Your task to perform on an android device: turn on bluetooth scan Image 0: 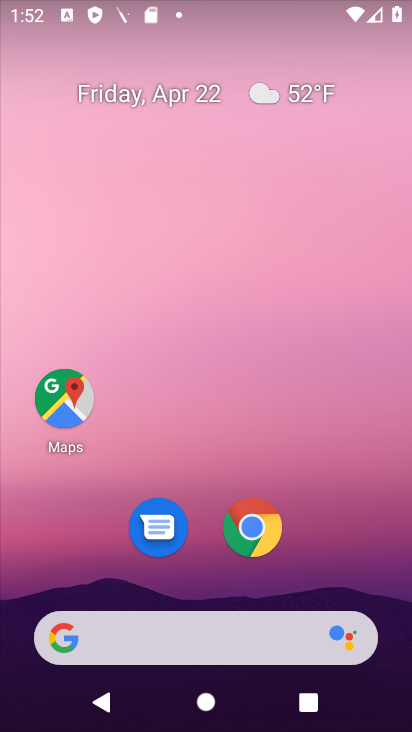
Step 0: drag from (353, 467) to (340, 107)
Your task to perform on an android device: turn on bluetooth scan Image 1: 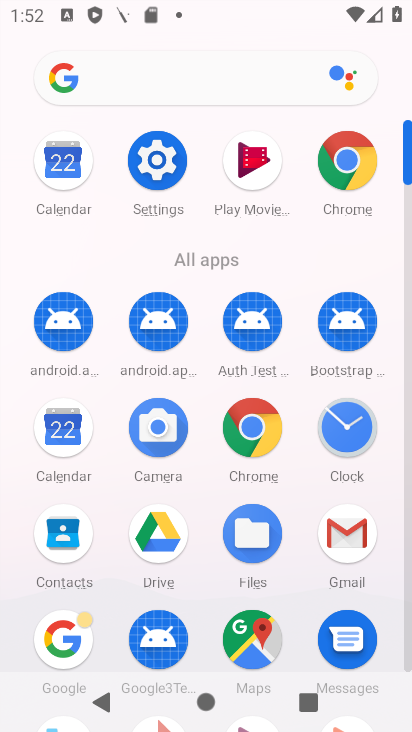
Step 1: click (136, 161)
Your task to perform on an android device: turn on bluetooth scan Image 2: 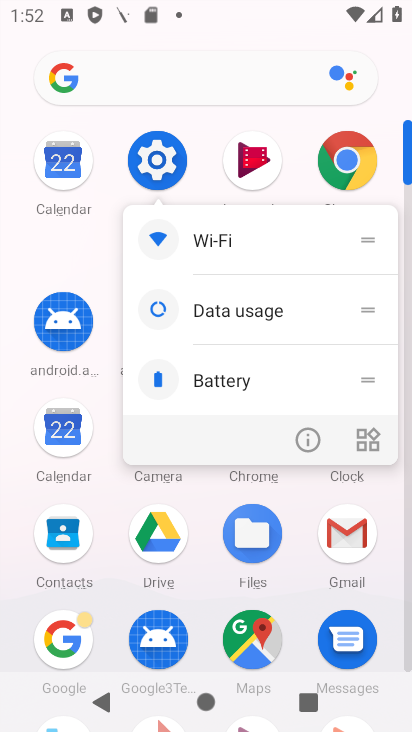
Step 2: click (136, 159)
Your task to perform on an android device: turn on bluetooth scan Image 3: 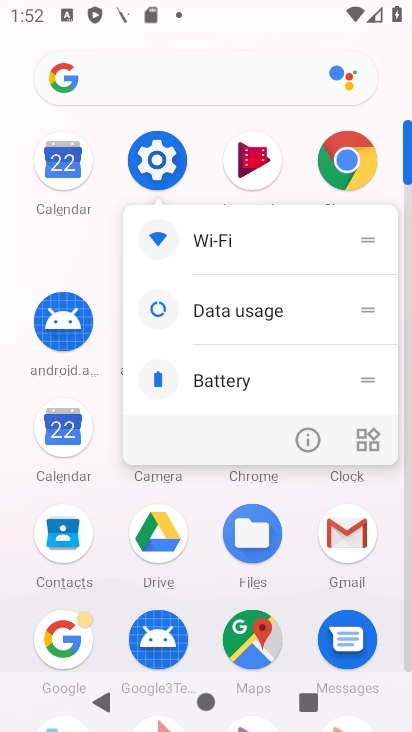
Step 3: click (168, 155)
Your task to perform on an android device: turn on bluetooth scan Image 4: 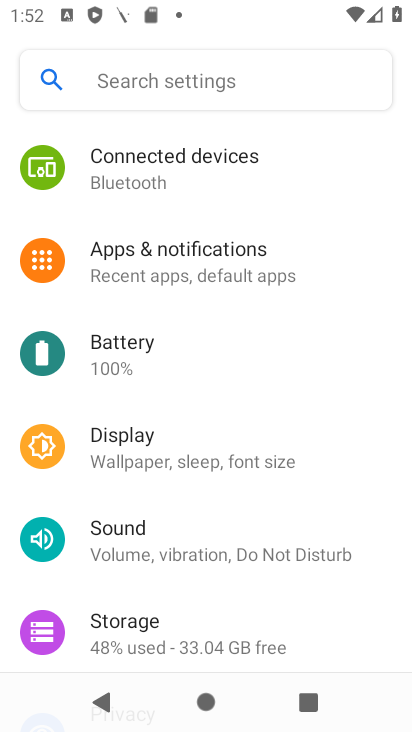
Step 4: drag from (221, 517) to (183, 250)
Your task to perform on an android device: turn on bluetooth scan Image 5: 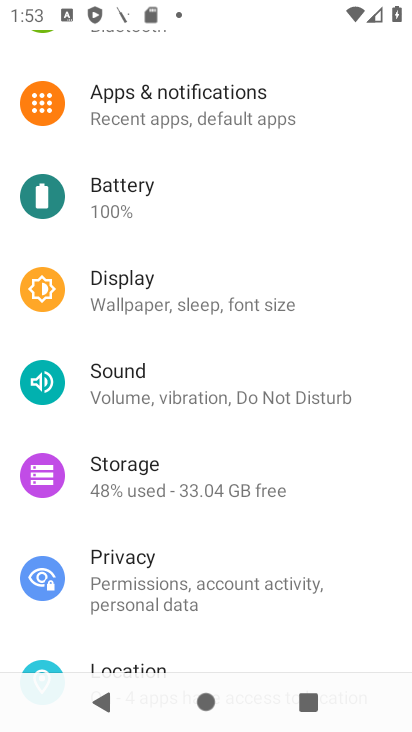
Step 5: drag from (213, 546) to (199, 283)
Your task to perform on an android device: turn on bluetooth scan Image 6: 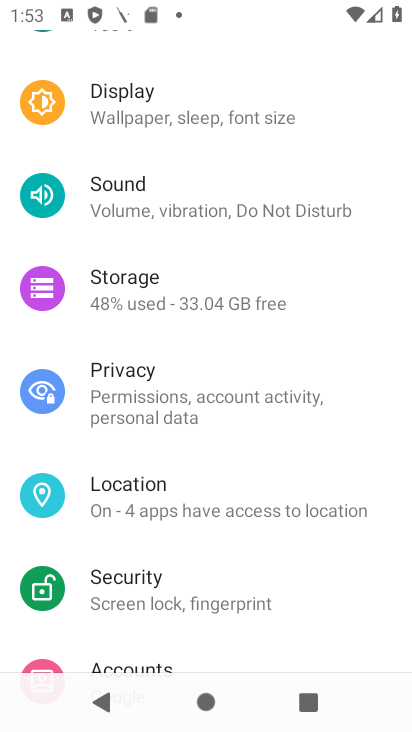
Step 6: click (201, 501)
Your task to perform on an android device: turn on bluetooth scan Image 7: 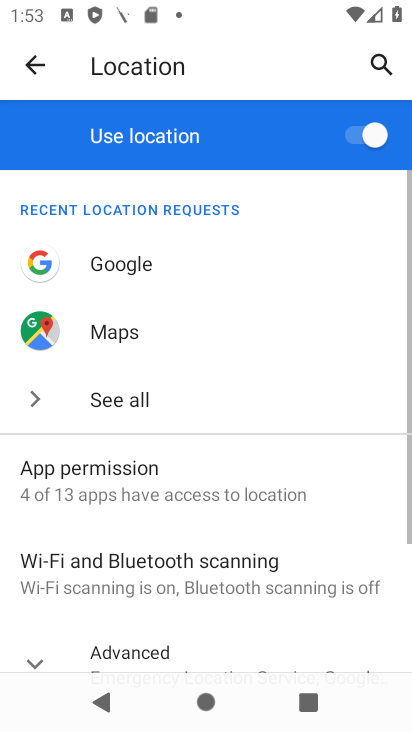
Step 7: drag from (238, 528) to (252, 242)
Your task to perform on an android device: turn on bluetooth scan Image 8: 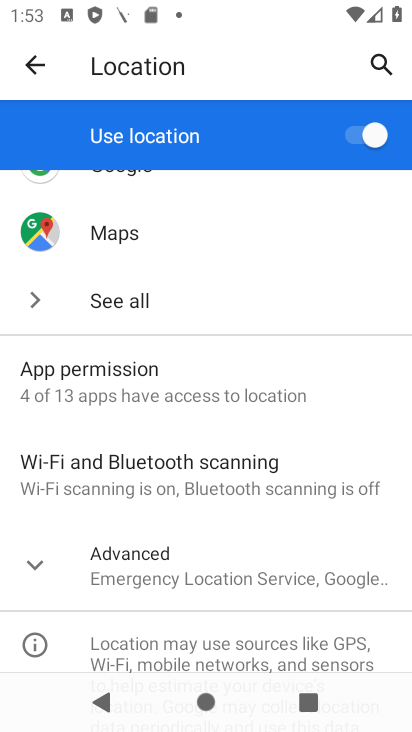
Step 8: click (219, 477)
Your task to perform on an android device: turn on bluetooth scan Image 9: 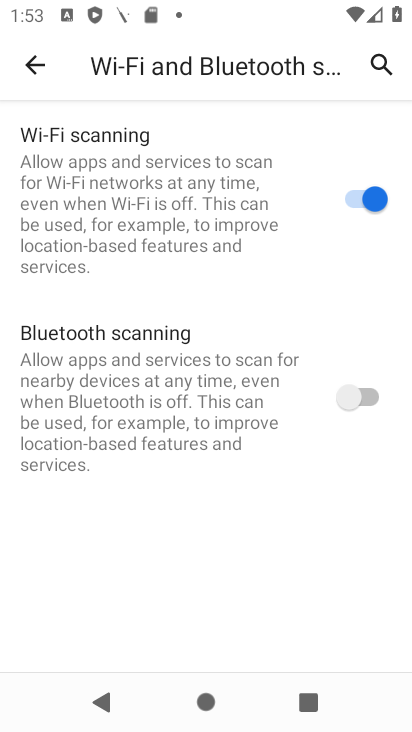
Step 9: click (343, 401)
Your task to perform on an android device: turn on bluetooth scan Image 10: 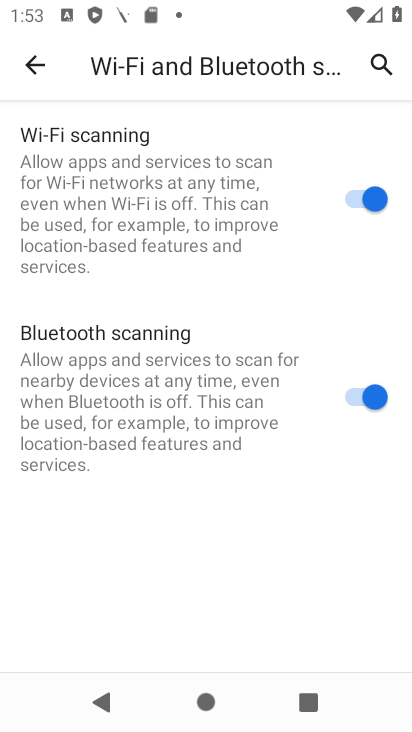
Step 10: task complete